Your task to perform on an android device: turn on improve location accuracy Image 0: 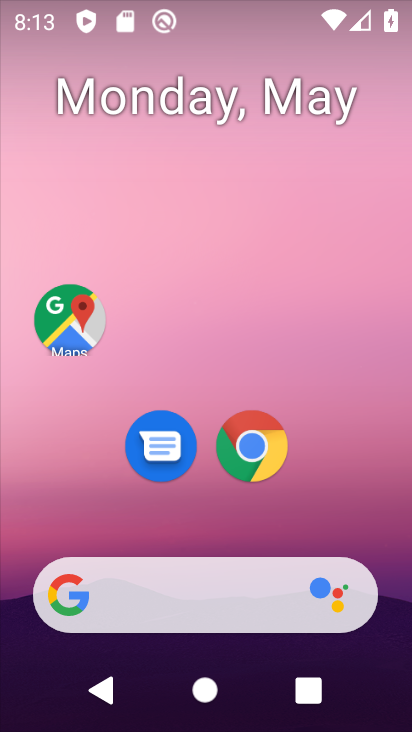
Step 0: press home button
Your task to perform on an android device: turn on improve location accuracy Image 1: 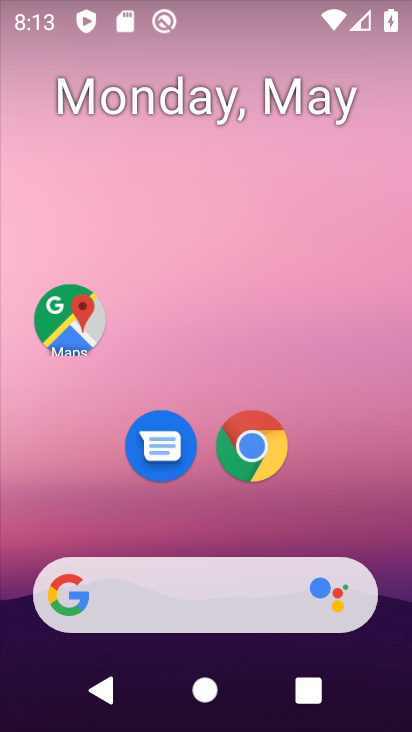
Step 1: drag from (203, 537) to (243, 60)
Your task to perform on an android device: turn on improve location accuracy Image 2: 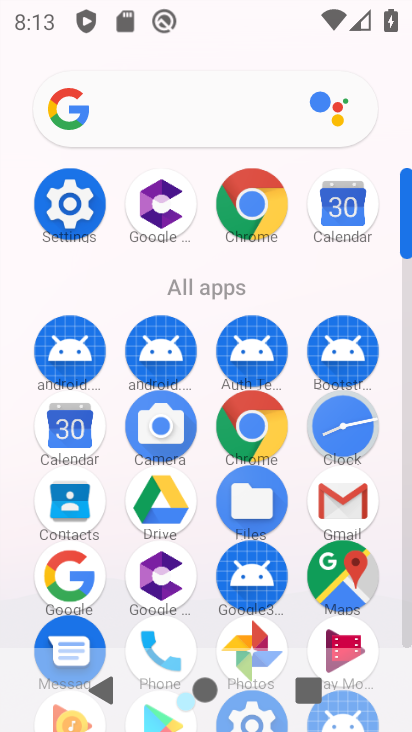
Step 2: click (68, 196)
Your task to perform on an android device: turn on improve location accuracy Image 3: 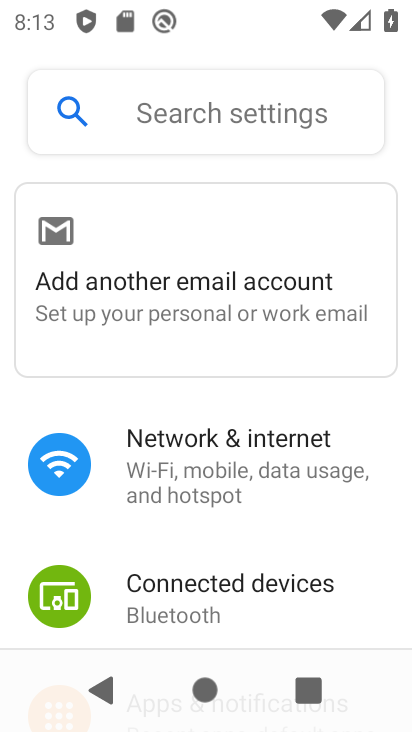
Step 3: drag from (201, 564) to (270, 82)
Your task to perform on an android device: turn on improve location accuracy Image 4: 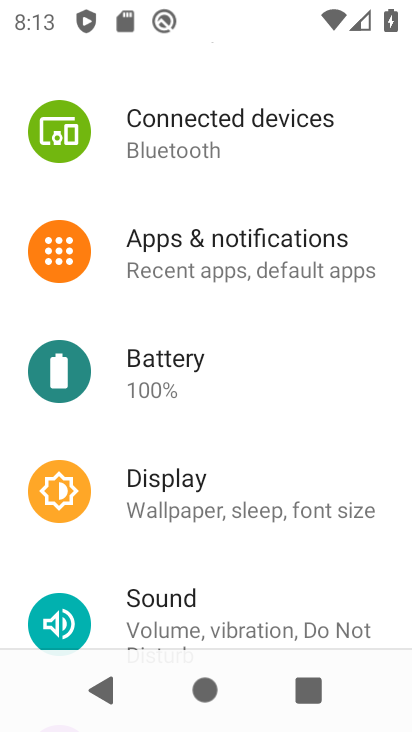
Step 4: drag from (247, 577) to (269, 117)
Your task to perform on an android device: turn on improve location accuracy Image 5: 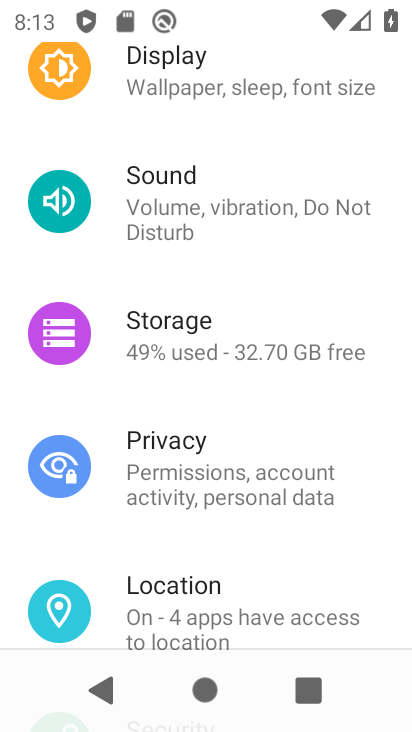
Step 5: click (240, 592)
Your task to perform on an android device: turn on improve location accuracy Image 6: 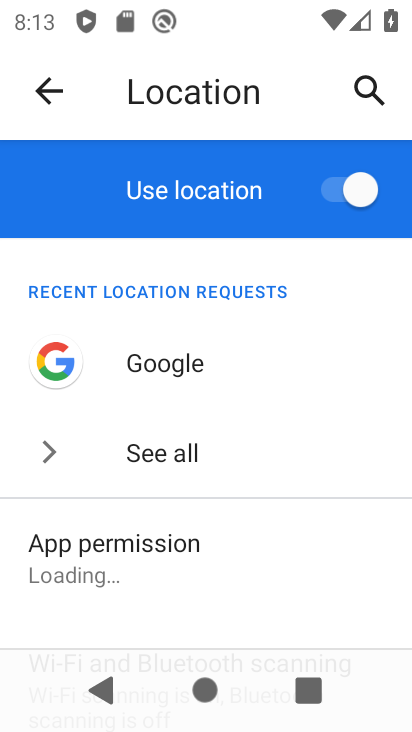
Step 6: drag from (216, 602) to (249, 133)
Your task to perform on an android device: turn on improve location accuracy Image 7: 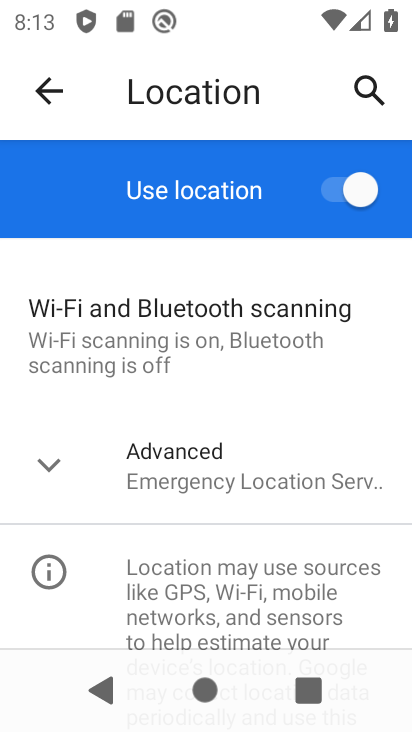
Step 7: click (48, 457)
Your task to perform on an android device: turn on improve location accuracy Image 8: 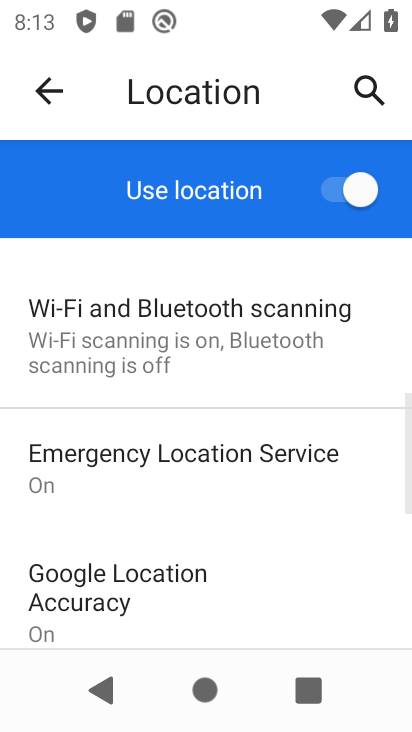
Step 8: click (157, 612)
Your task to perform on an android device: turn on improve location accuracy Image 9: 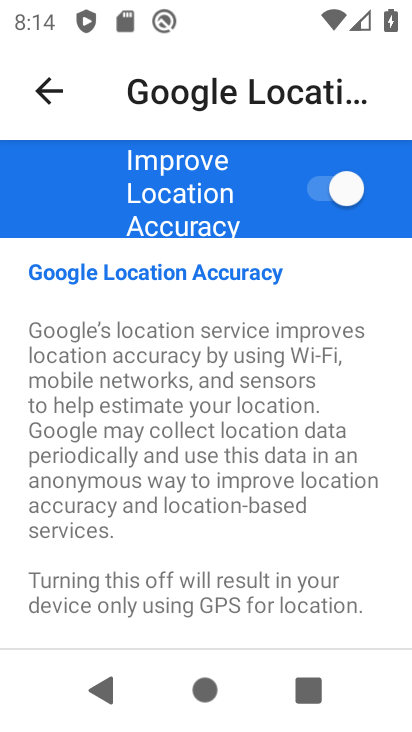
Step 9: task complete